Your task to perform on an android device: set the stopwatch Image 0: 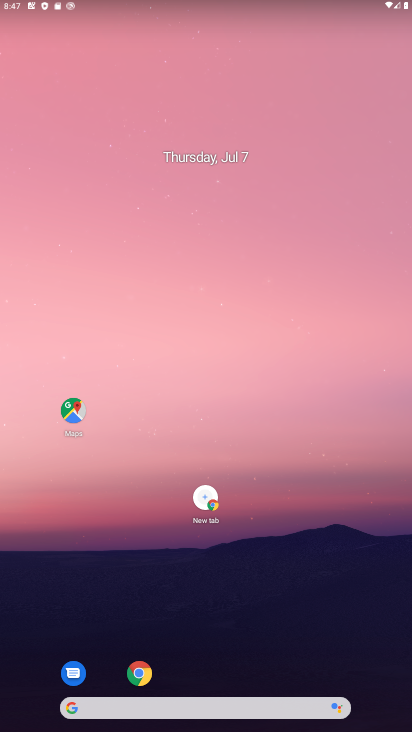
Step 0: press home button
Your task to perform on an android device: set the stopwatch Image 1: 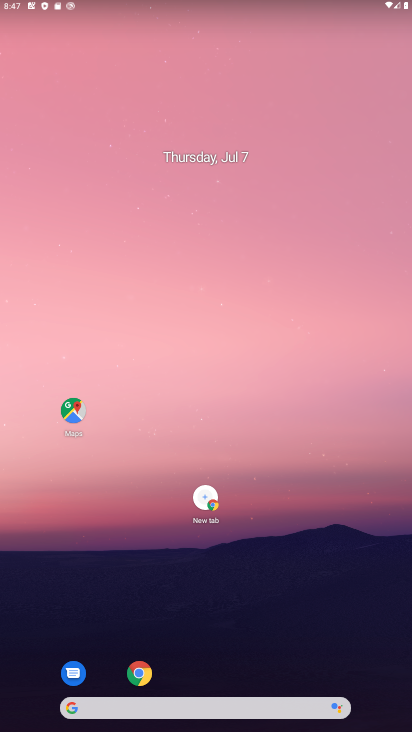
Step 1: drag from (254, 655) to (187, 115)
Your task to perform on an android device: set the stopwatch Image 2: 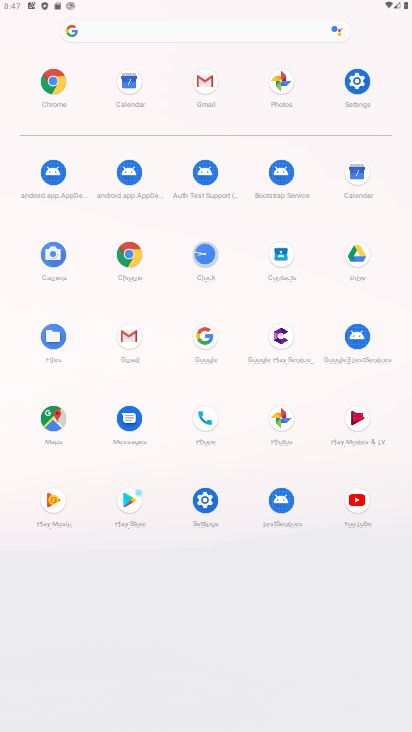
Step 2: click (205, 260)
Your task to perform on an android device: set the stopwatch Image 3: 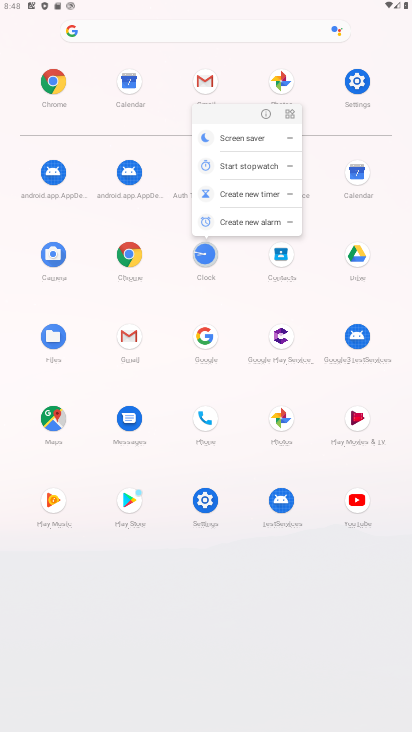
Step 3: click (205, 260)
Your task to perform on an android device: set the stopwatch Image 4: 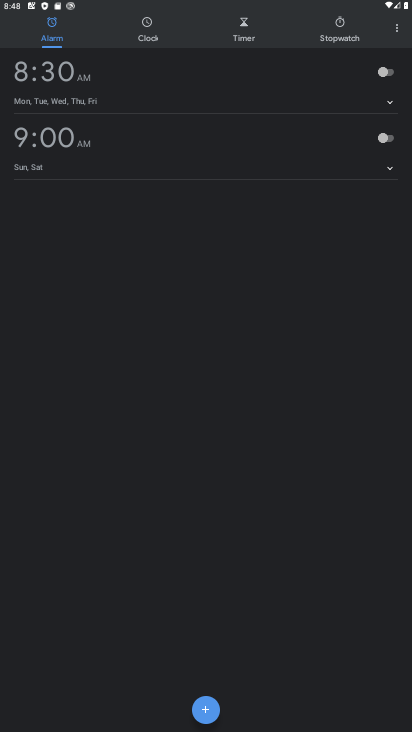
Step 4: click (343, 35)
Your task to perform on an android device: set the stopwatch Image 5: 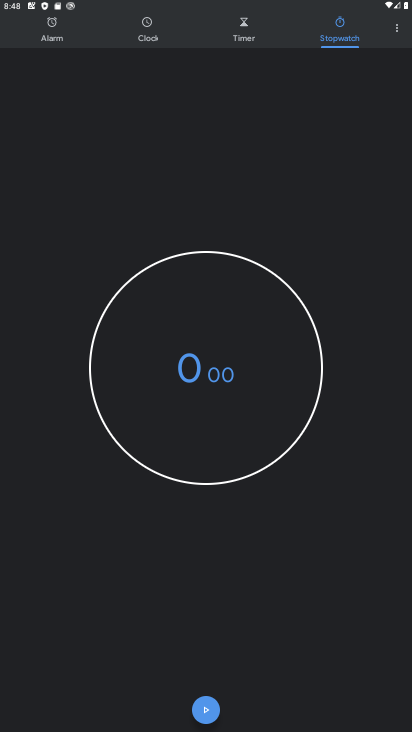
Step 5: click (203, 371)
Your task to perform on an android device: set the stopwatch Image 6: 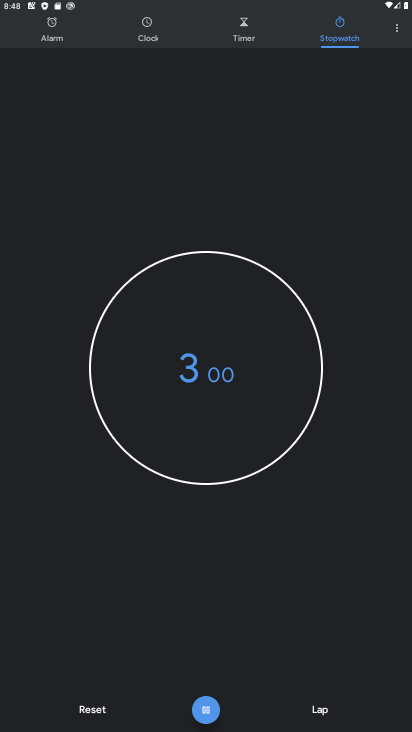
Step 6: task complete